Your task to perform on an android device: toggle show notifications on the lock screen Image 0: 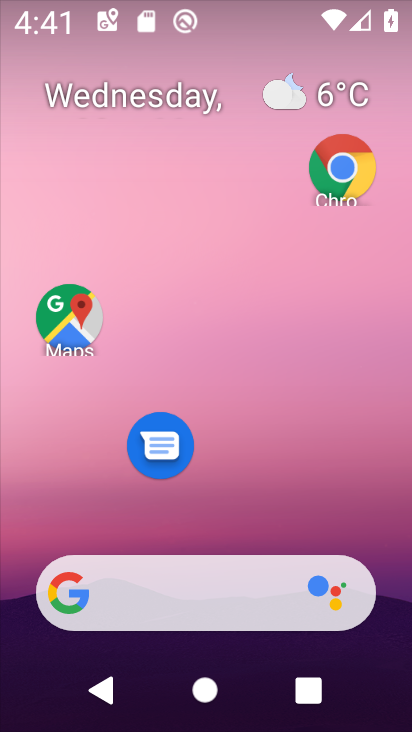
Step 0: drag from (225, 480) to (282, 3)
Your task to perform on an android device: toggle show notifications on the lock screen Image 1: 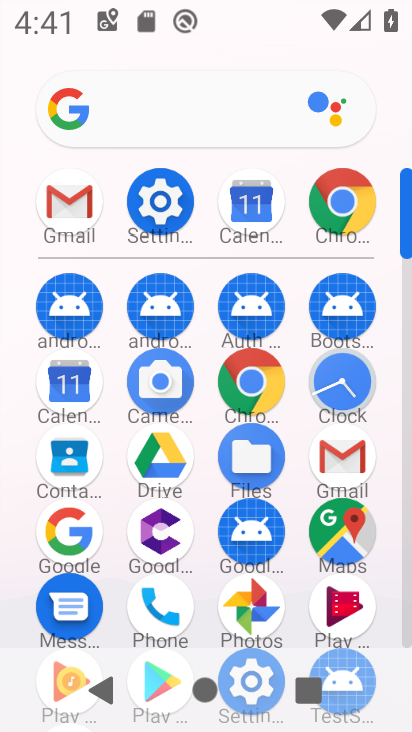
Step 1: click (165, 217)
Your task to perform on an android device: toggle show notifications on the lock screen Image 2: 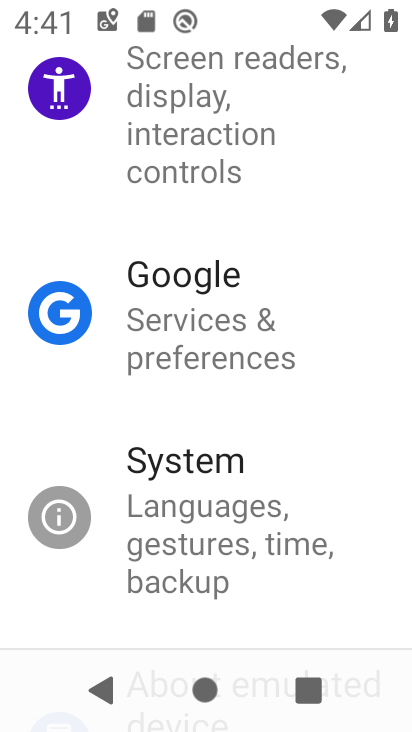
Step 2: drag from (188, 266) to (224, 667)
Your task to perform on an android device: toggle show notifications on the lock screen Image 3: 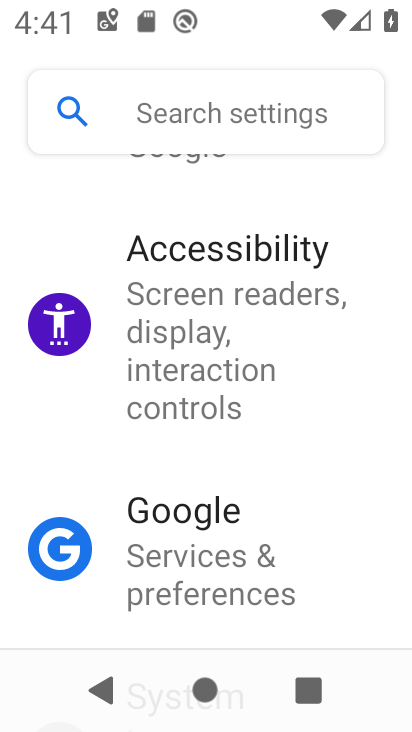
Step 3: drag from (282, 241) to (184, 681)
Your task to perform on an android device: toggle show notifications on the lock screen Image 4: 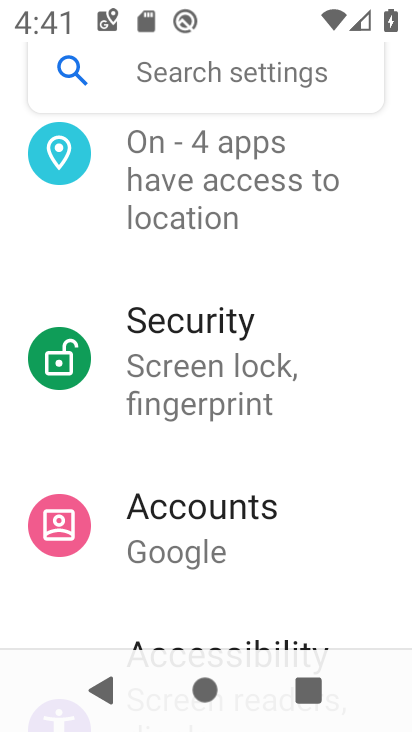
Step 4: drag from (192, 186) to (141, 674)
Your task to perform on an android device: toggle show notifications on the lock screen Image 5: 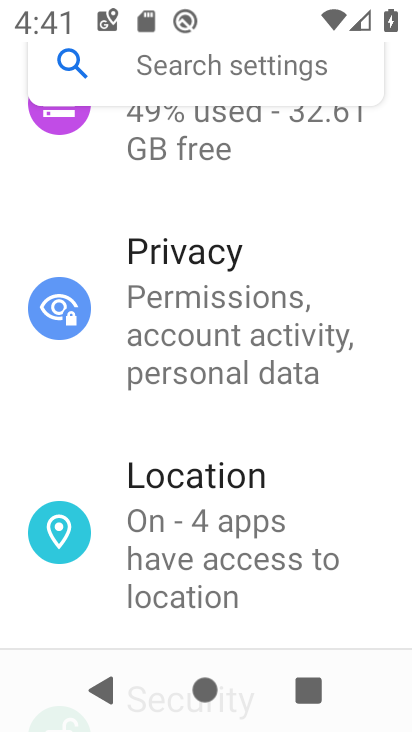
Step 5: drag from (246, 231) to (237, 682)
Your task to perform on an android device: toggle show notifications on the lock screen Image 6: 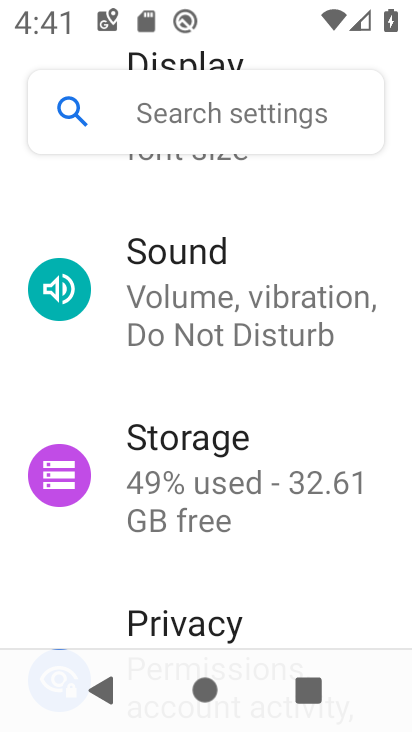
Step 6: drag from (238, 277) to (208, 701)
Your task to perform on an android device: toggle show notifications on the lock screen Image 7: 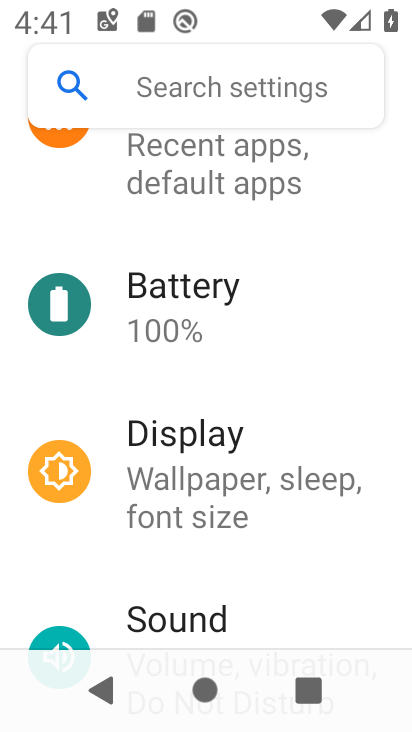
Step 7: drag from (218, 191) to (213, 619)
Your task to perform on an android device: toggle show notifications on the lock screen Image 8: 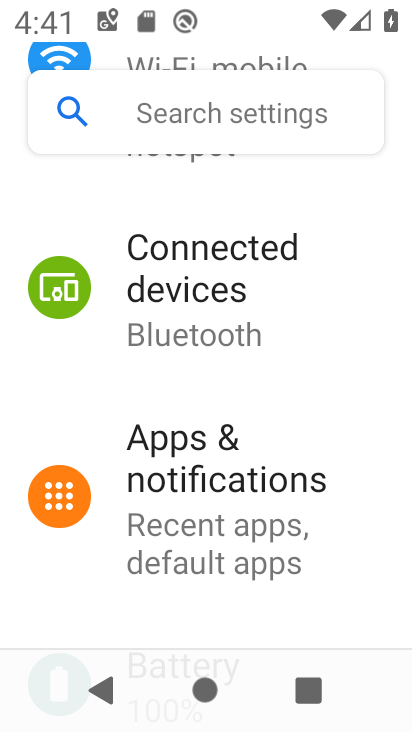
Step 8: drag from (232, 343) to (245, 309)
Your task to perform on an android device: toggle show notifications on the lock screen Image 9: 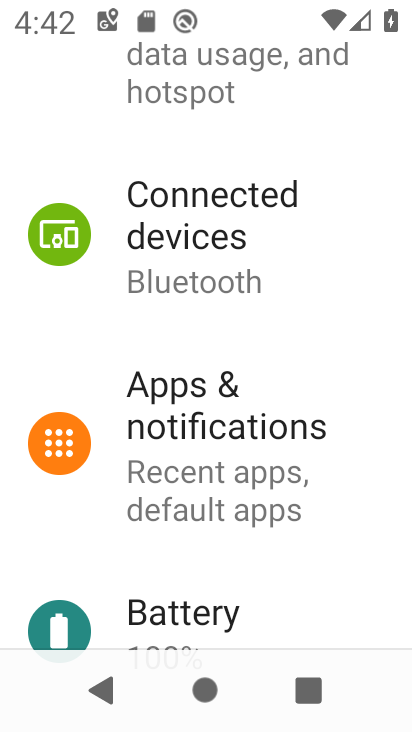
Step 9: click (219, 442)
Your task to perform on an android device: toggle show notifications on the lock screen Image 10: 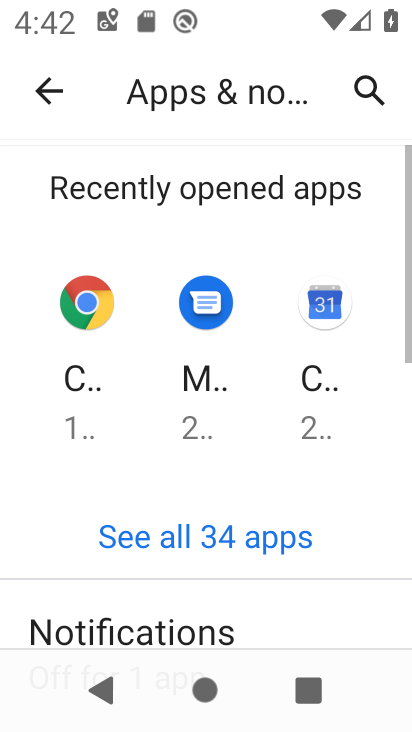
Step 10: drag from (215, 581) to (271, 262)
Your task to perform on an android device: toggle show notifications on the lock screen Image 11: 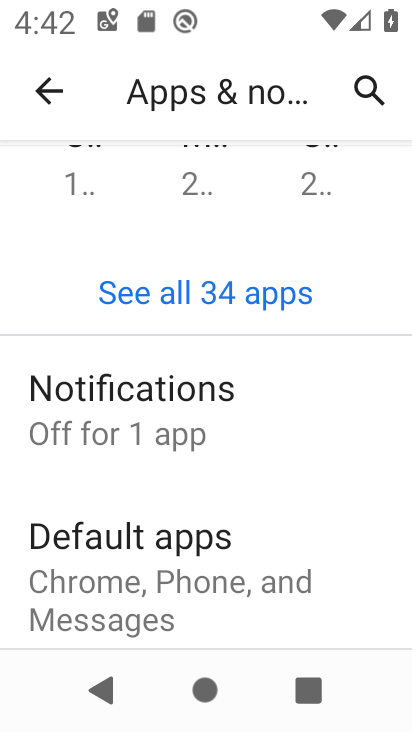
Step 11: click (180, 438)
Your task to perform on an android device: toggle show notifications on the lock screen Image 12: 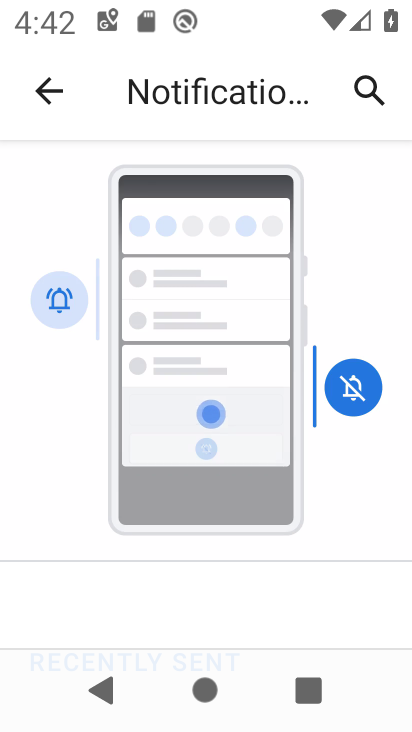
Step 12: drag from (181, 574) to (222, 197)
Your task to perform on an android device: toggle show notifications on the lock screen Image 13: 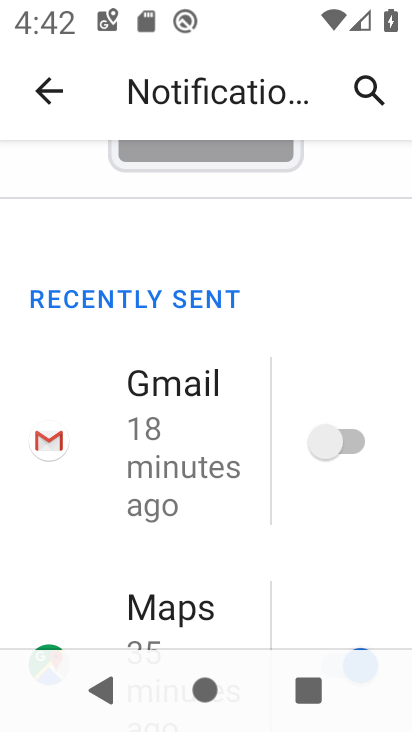
Step 13: drag from (178, 569) to (236, 241)
Your task to perform on an android device: toggle show notifications on the lock screen Image 14: 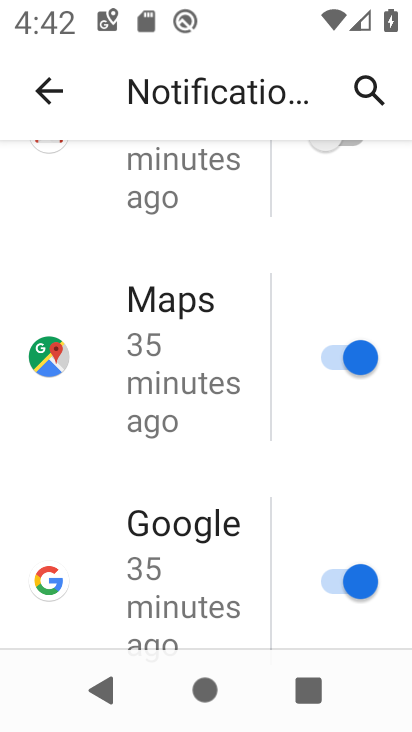
Step 14: drag from (175, 533) to (222, 212)
Your task to perform on an android device: toggle show notifications on the lock screen Image 15: 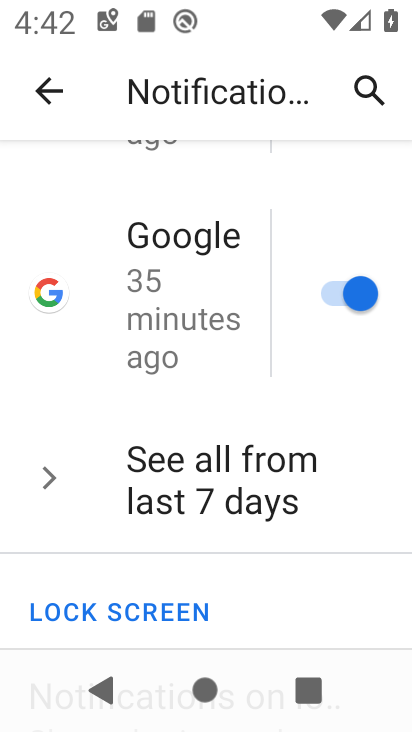
Step 15: drag from (213, 624) to (264, 241)
Your task to perform on an android device: toggle show notifications on the lock screen Image 16: 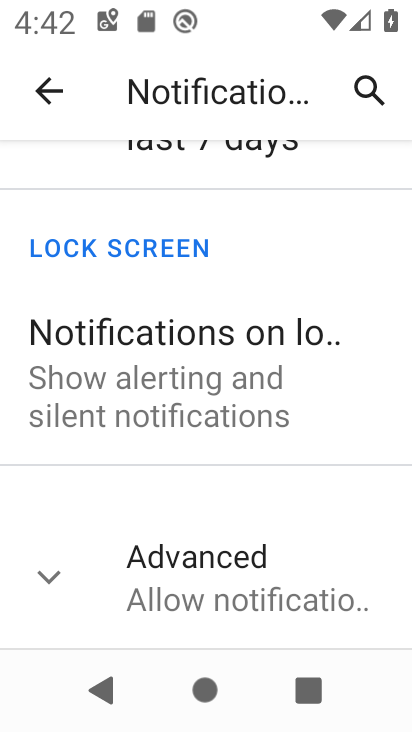
Step 16: click (228, 419)
Your task to perform on an android device: toggle show notifications on the lock screen Image 17: 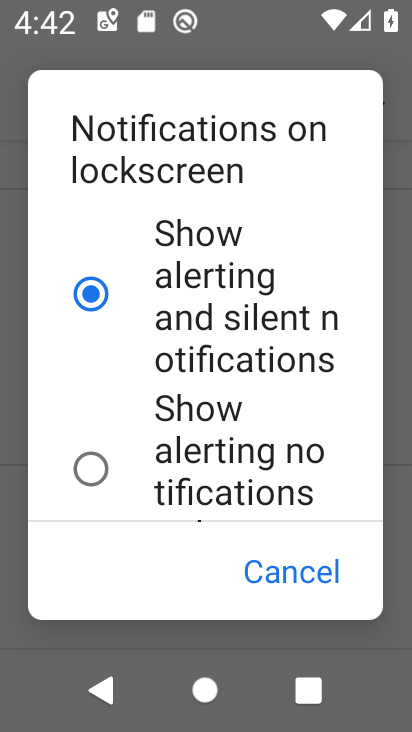
Step 17: drag from (199, 453) to (255, 140)
Your task to perform on an android device: toggle show notifications on the lock screen Image 18: 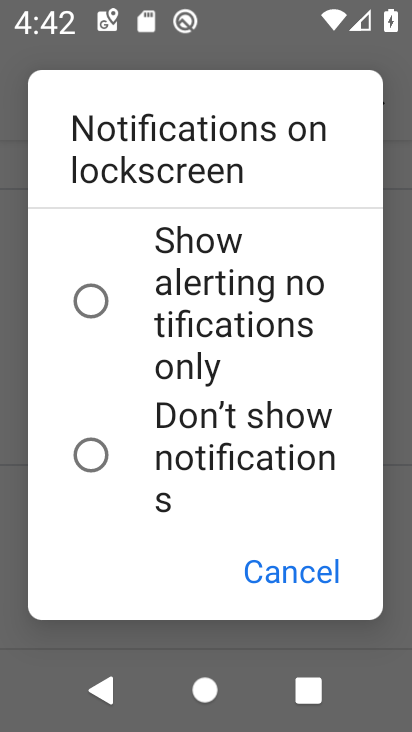
Step 18: click (98, 462)
Your task to perform on an android device: toggle show notifications on the lock screen Image 19: 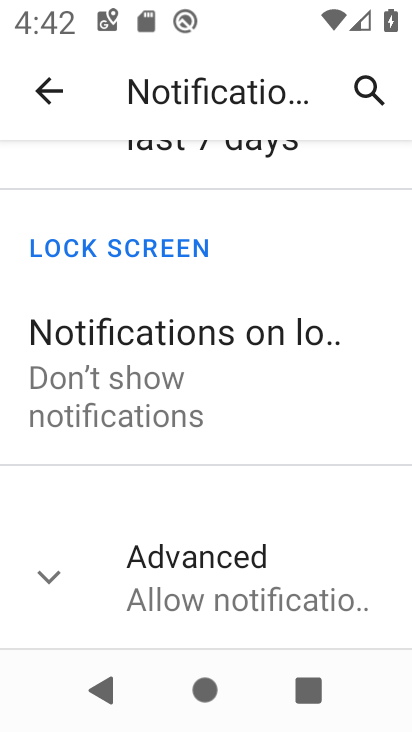
Step 19: task complete